Your task to perform on an android device: Go to CNN.com Image 0: 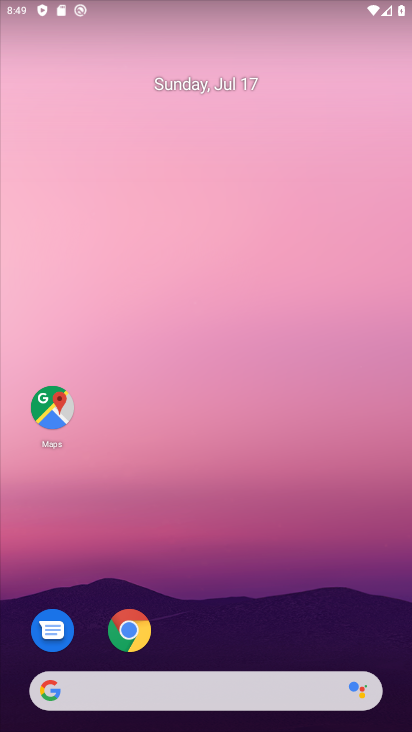
Step 0: click (135, 640)
Your task to perform on an android device: Go to CNN.com Image 1: 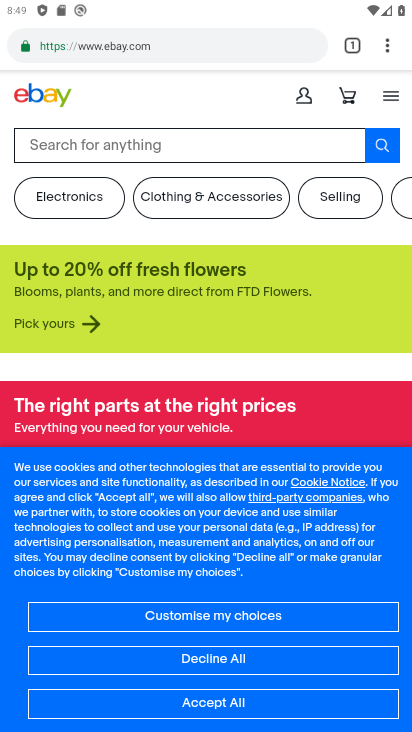
Step 1: drag from (390, 45) to (351, 82)
Your task to perform on an android device: Go to CNN.com Image 2: 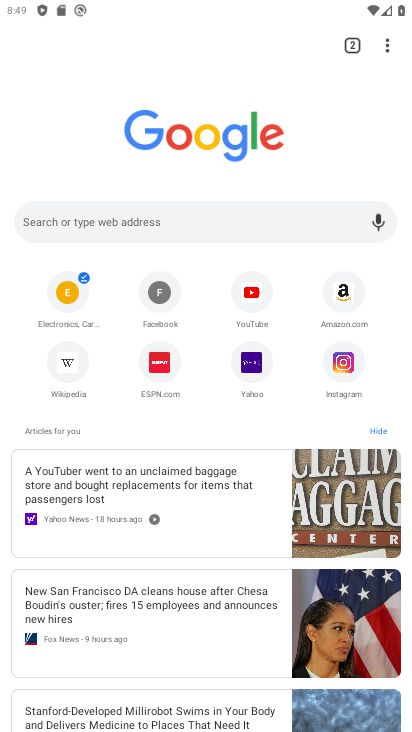
Step 2: click (180, 217)
Your task to perform on an android device: Go to CNN.com Image 3: 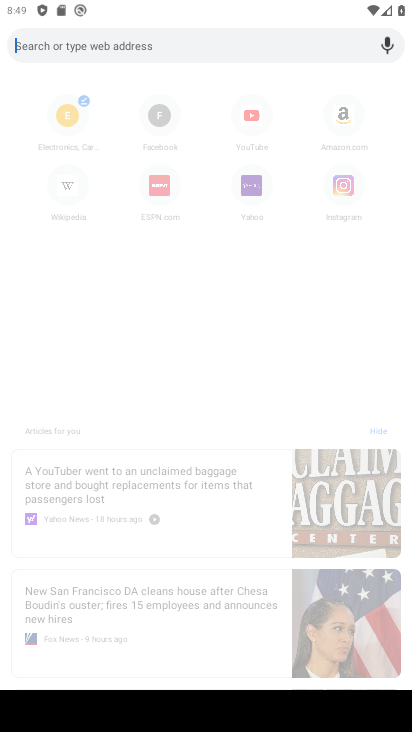
Step 3: type "CNN.com"
Your task to perform on an android device: Go to CNN.com Image 4: 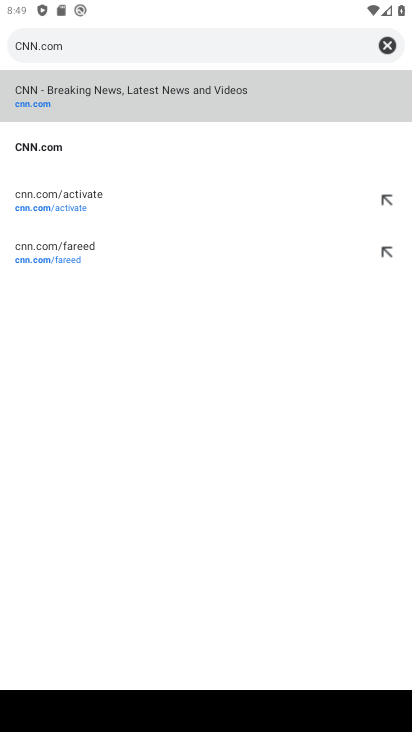
Step 4: click (188, 93)
Your task to perform on an android device: Go to CNN.com Image 5: 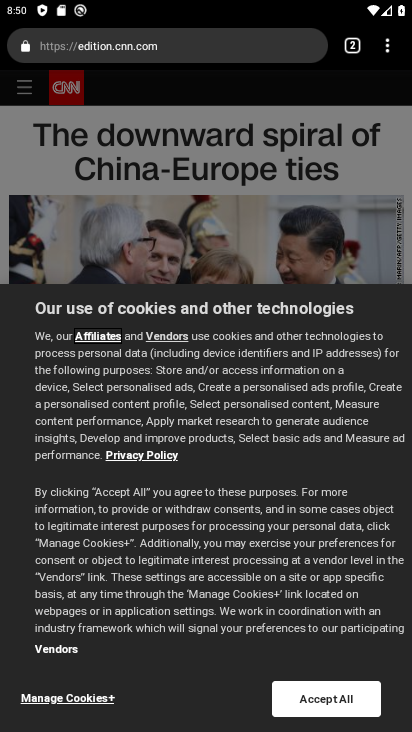
Step 5: click (330, 691)
Your task to perform on an android device: Go to CNN.com Image 6: 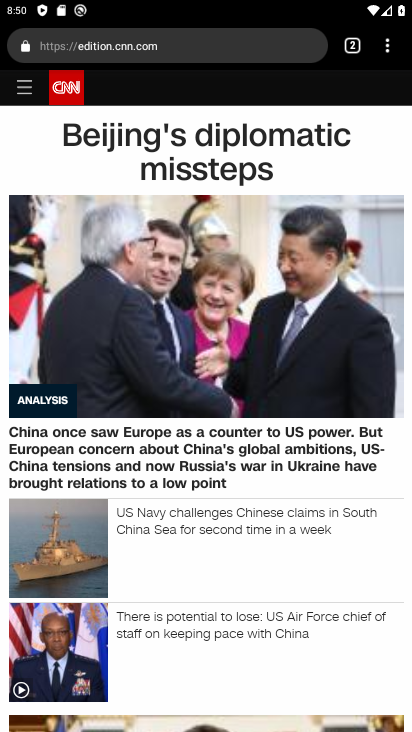
Step 6: task complete